Your task to perform on an android device: turn off wifi Image 0: 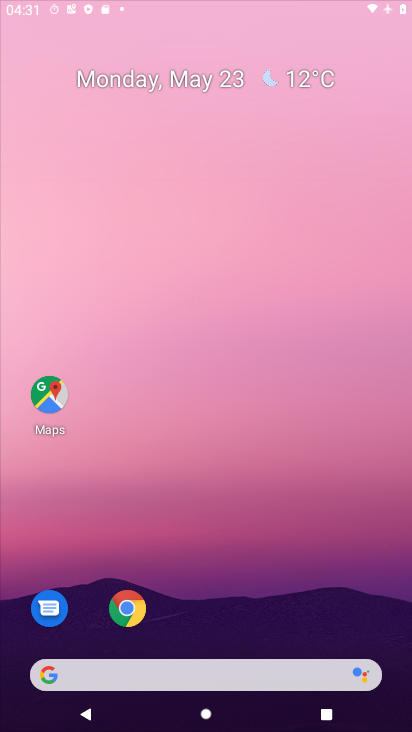
Step 0: drag from (319, 506) to (241, 5)
Your task to perform on an android device: turn off wifi Image 1: 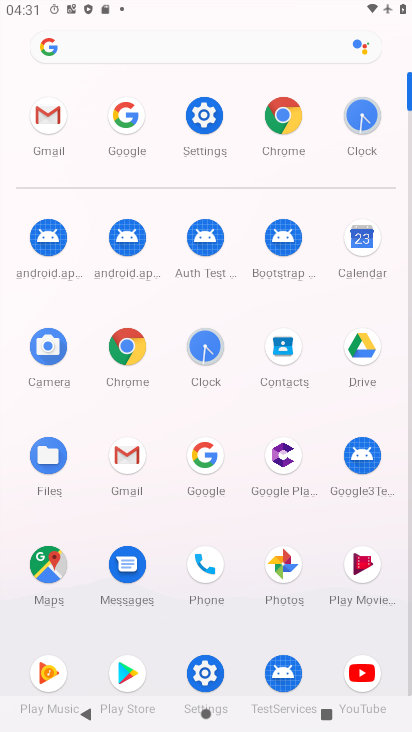
Step 1: click (202, 116)
Your task to perform on an android device: turn off wifi Image 2: 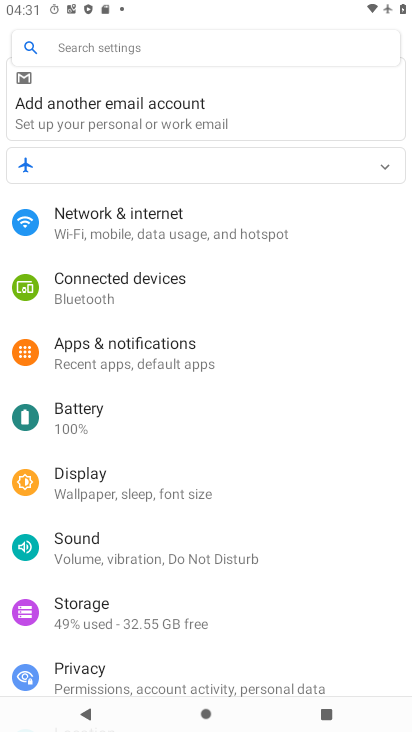
Step 2: click (194, 224)
Your task to perform on an android device: turn off wifi Image 3: 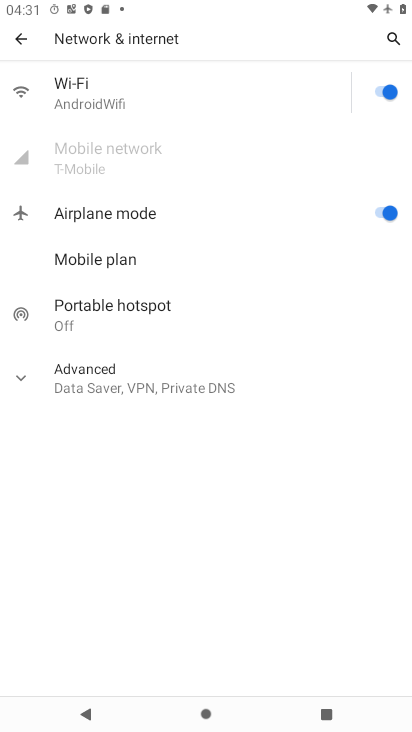
Step 3: click (387, 90)
Your task to perform on an android device: turn off wifi Image 4: 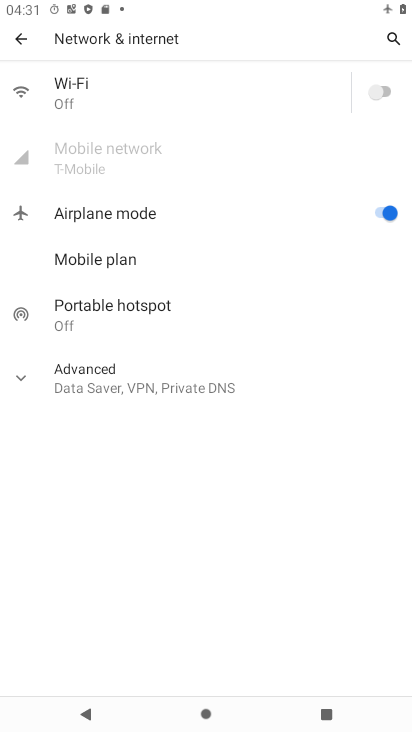
Step 4: task complete